Your task to perform on an android device: toggle priority inbox in the gmail app Image 0: 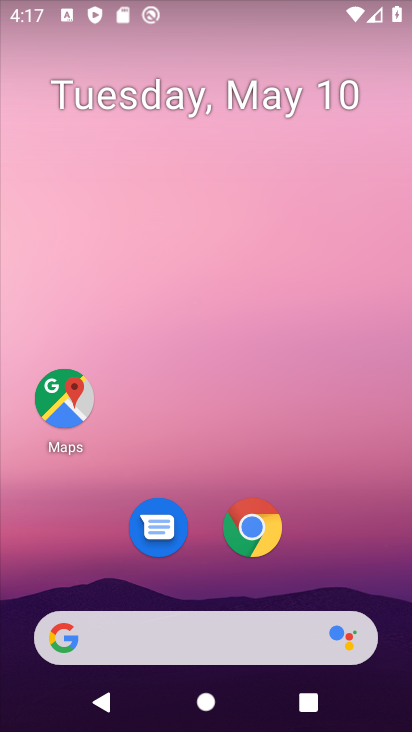
Step 0: drag from (361, 507) to (281, 29)
Your task to perform on an android device: toggle priority inbox in the gmail app Image 1: 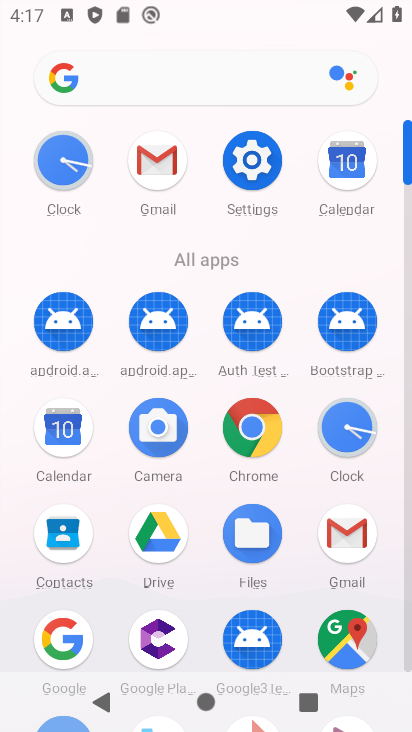
Step 1: drag from (295, 461) to (280, 190)
Your task to perform on an android device: toggle priority inbox in the gmail app Image 2: 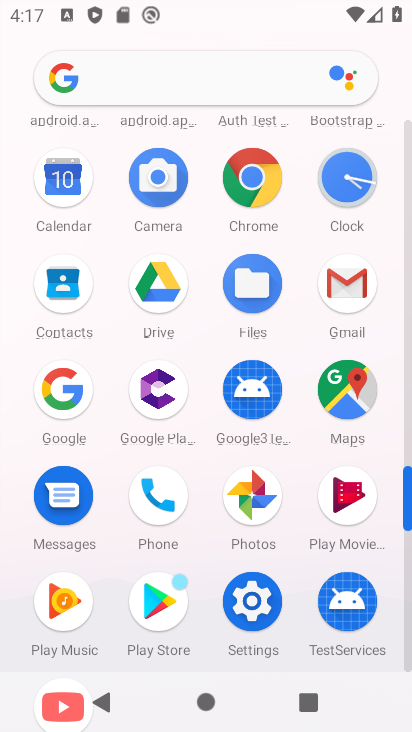
Step 2: click (346, 284)
Your task to perform on an android device: toggle priority inbox in the gmail app Image 3: 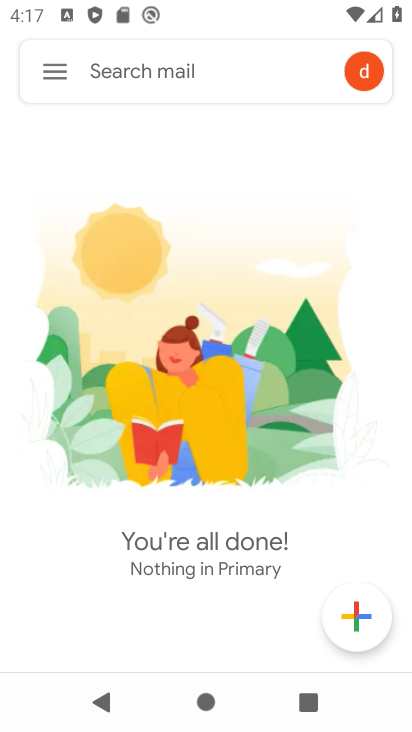
Step 3: click (61, 66)
Your task to perform on an android device: toggle priority inbox in the gmail app Image 4: 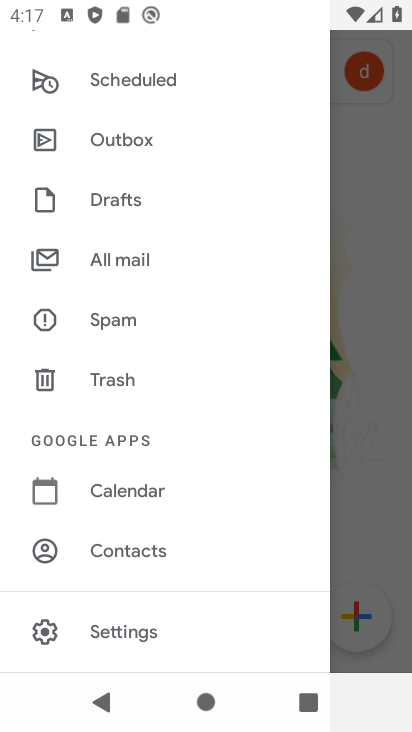
Step 4: click (120, 631)
Your task to perform on an android device: toggle priority inbox in the gmail app Image 5: 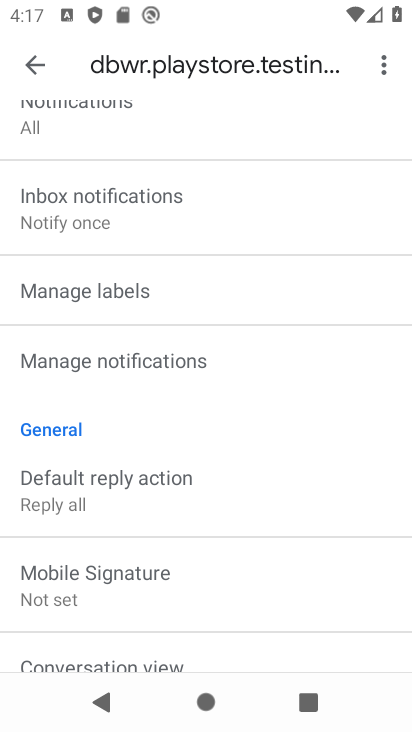
Step 5: drag from (256, 255) to (287, 603)
Your task to perform on an android device: toggle priority inbox in the gmail app Image 6: 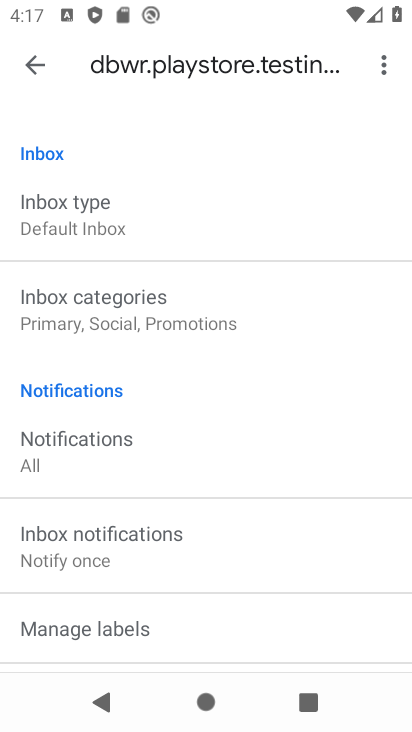
Step 6: drag from (223, 348) to (245, 568)
Your task to perform on an android device: toggle priority inbox in the gmail app Image 7: 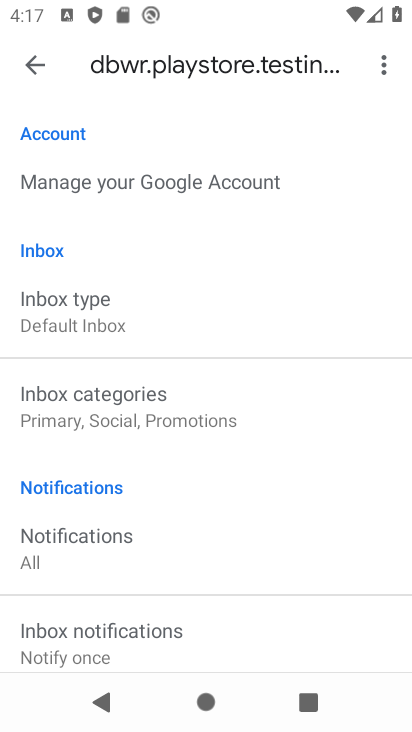
Step 7: click (80, 308)
Your task to perform on an android device: toggle priority inbox in the gmail app Image 8: 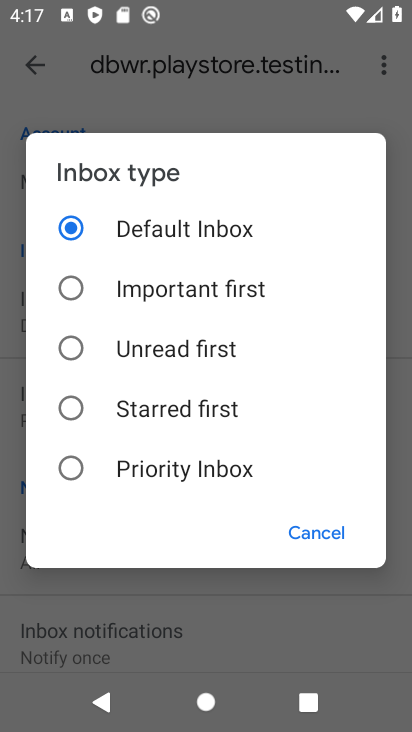
Step 8: click (82, 457)
Your task to perform on an android device: toggle priority inbox in the gmail app Image 9: 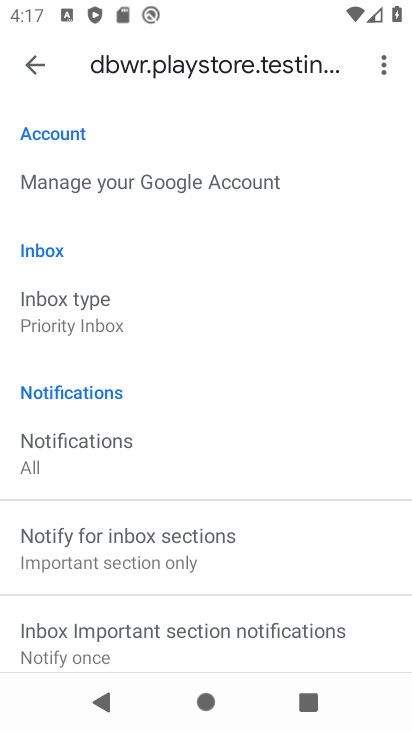
Step 9: task complete